Your task to perform on an android device: uninstall "ColorNote Notepad Notes" Image 0: 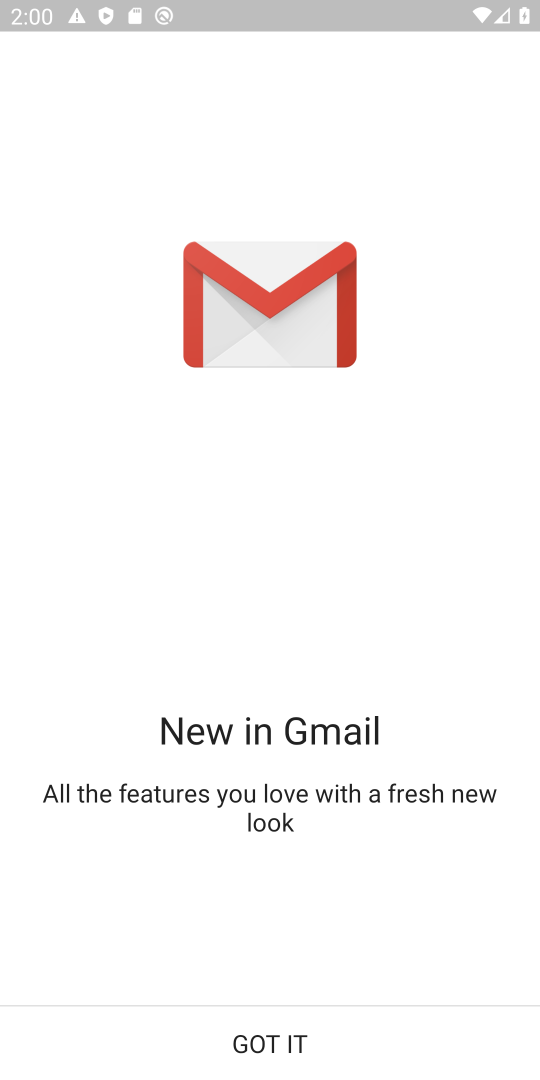
Step 0: press home button
Your task to perform on an android device: uninstall "ColorNote Notepad Notes" Image 1: 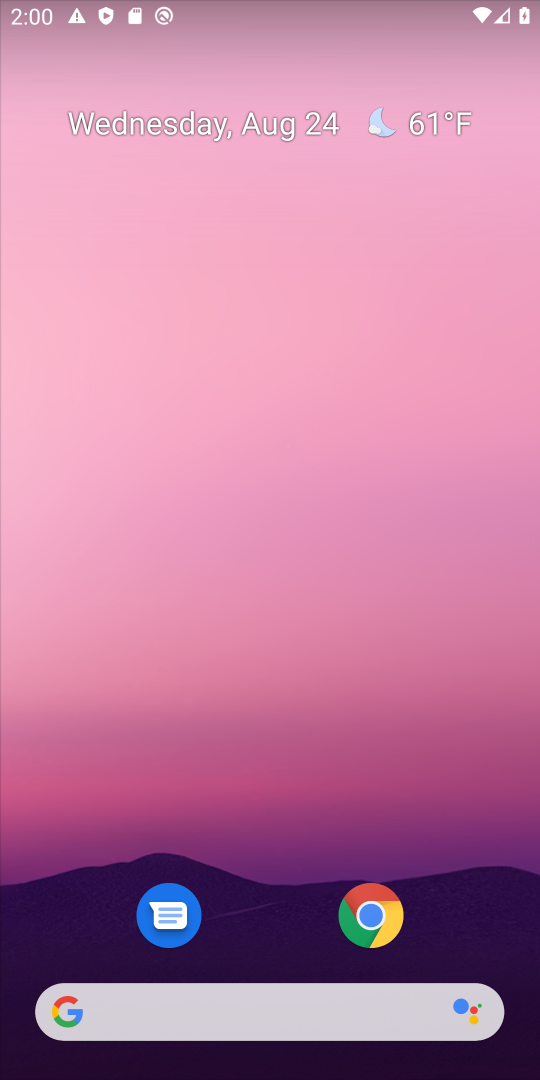
Step 1: drag from (258, 885) to (280, 366)
Your task to perform on an android device: uninstall "ColorNote Notepad Notes" Image 2: 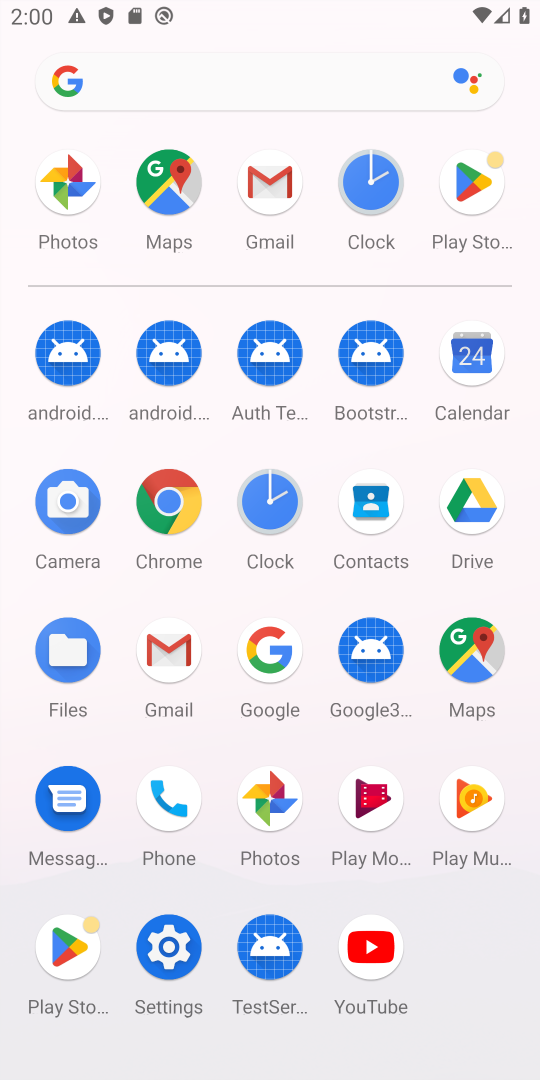
Step 2: click (466, 182)
Your task to perform on an android device: uninstall "ColorNote Notepad Notes" Image 3: 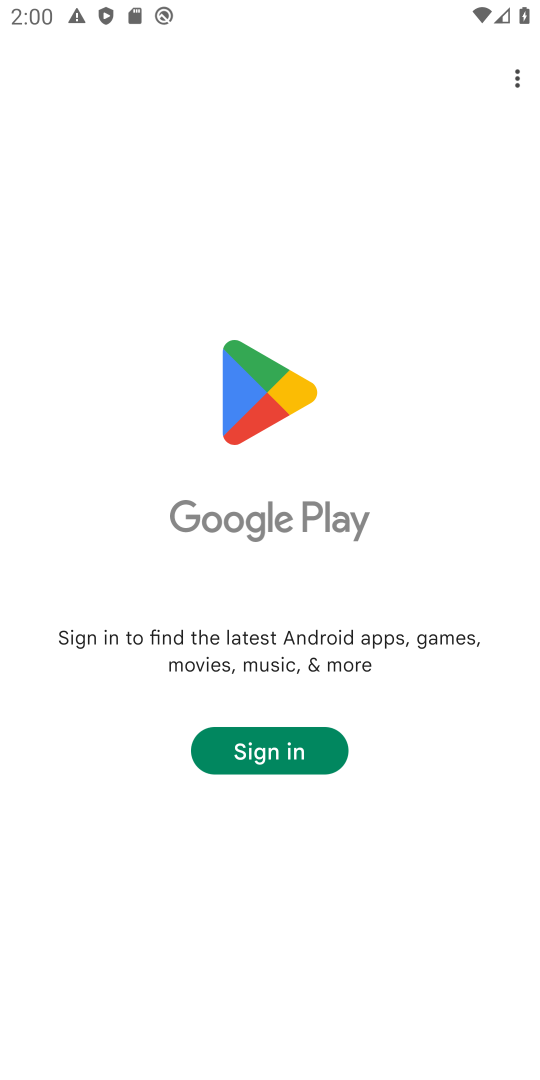
Step 3: task complete